Your task to perform on an android device: move an email to a new category in the gmail app Image 0: 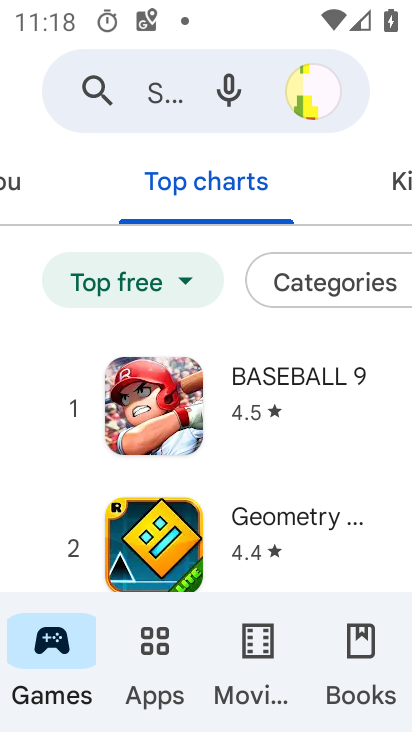
Step 0: press home button
Your task to perform on an android device: move an email to a new category in the gmail app Image 1: 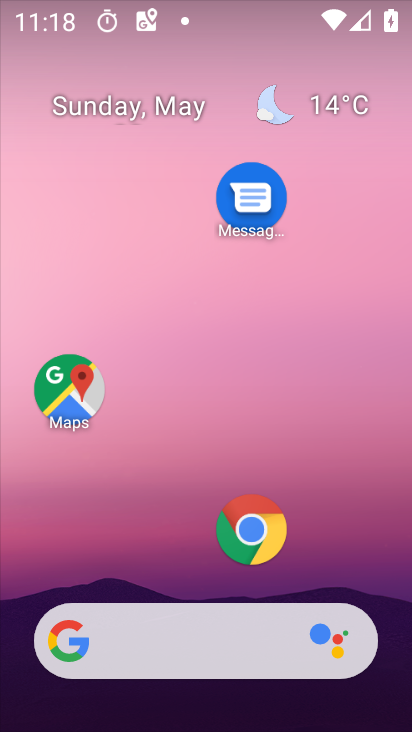
Step 1: drag from (155, 573) to (199, 41)
Your task to perform on an android device: move an email to a new category in the gmail app Image 2: 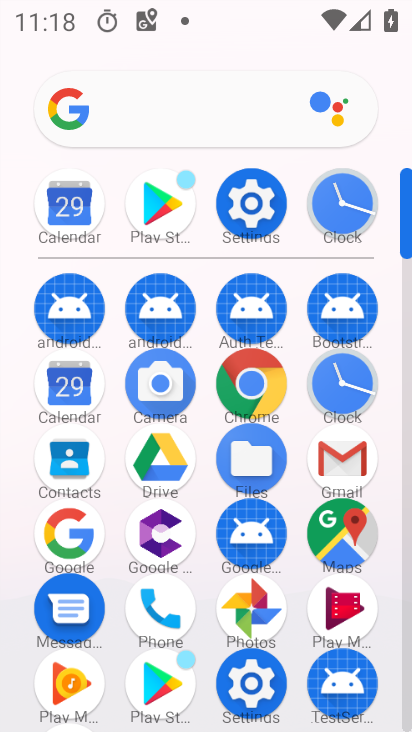
Step 2: click (344, 463)
Your task to perform on an android device: move an email to a new category in the gmail app Image 3: 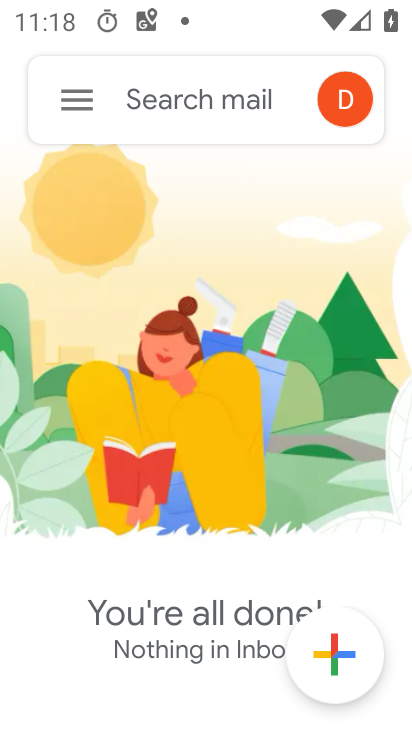
Step 3: click (75, 100)
Your task to perform on an android device: move an email to a new category in the gmail app Image 4: 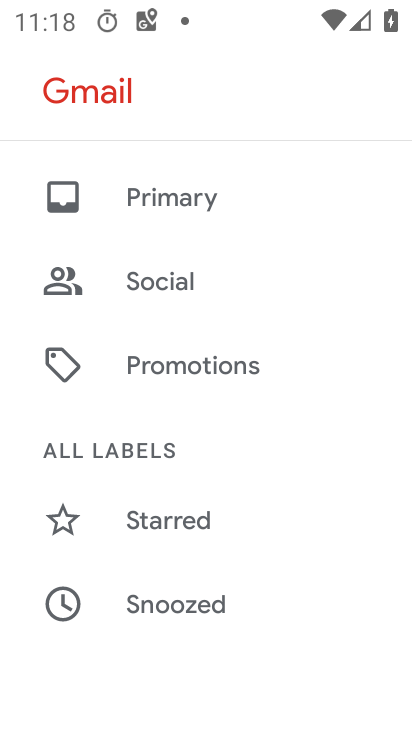
Step 4: drag from (177, 539) to (285, 2)
Your task to perform on an android device: move an email to a new category in the gmail app Image 5: 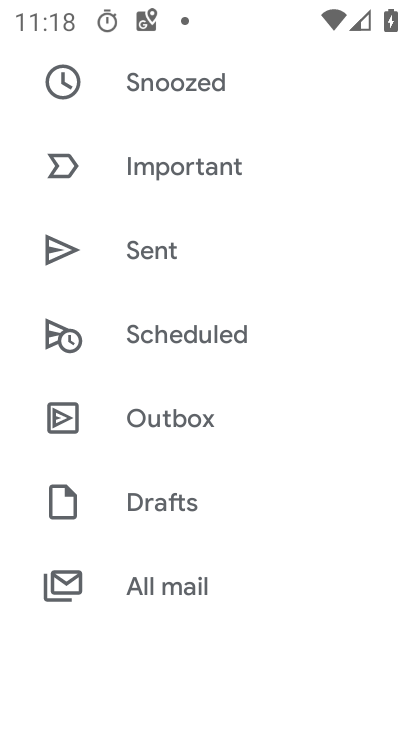
Step 5: click (160, 596)
Your task to perform on an android device: move an email to a new category in the gmail app Image 6: 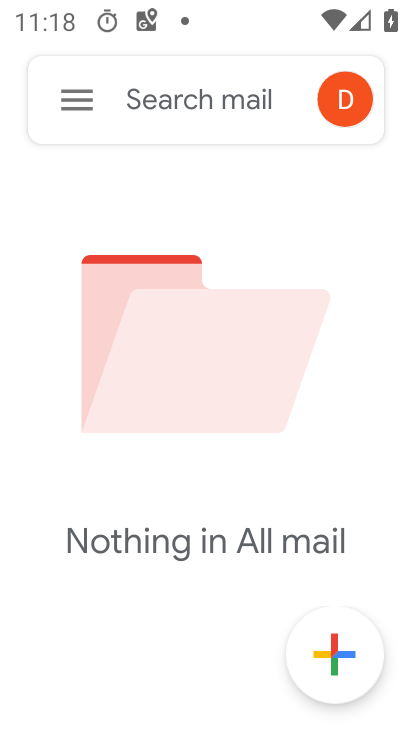
Step 6: task complete